Your task to perform on an android device: Search for seafood restaurants on Google Maps Image 0: 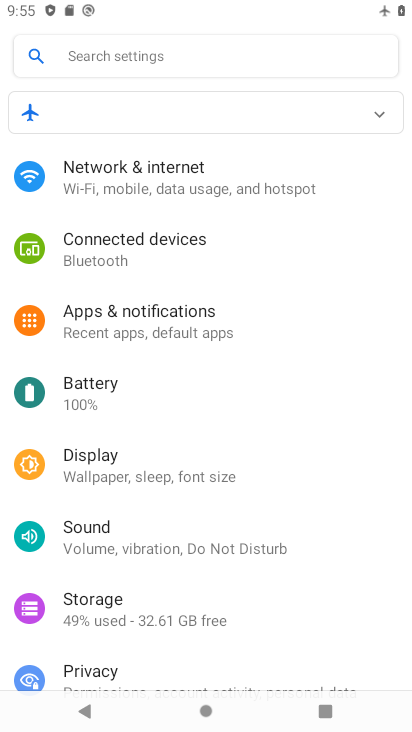
Step 0: press home button
Your task to perform on an android device: Search for seafood restaurants on Google Maps Image 1: 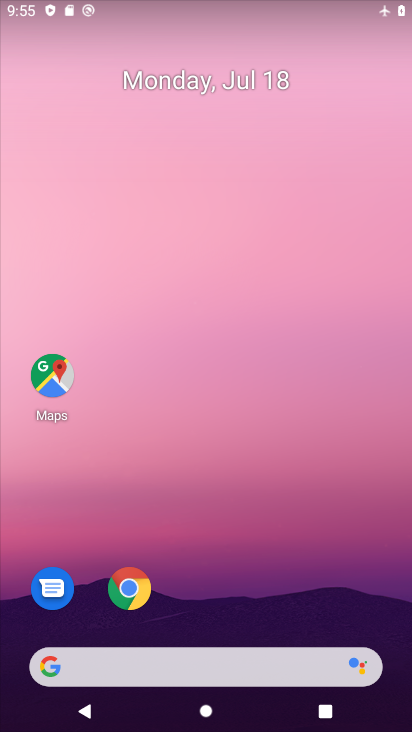
Step 1: drag from (235, 727) to (231, 149)
Your task to perform on an android device: Search for seafood restaurants on Google Maps Image 2: 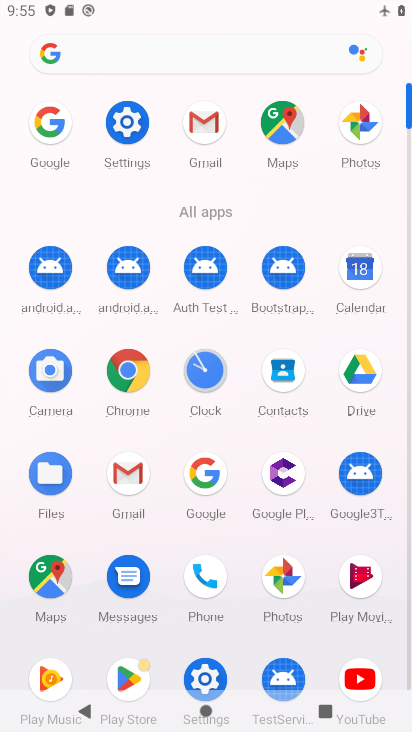
Step 2: click (285, 125)
Your task to perform on an android device: Search for seafood restaurants on Google Maps Image 3: 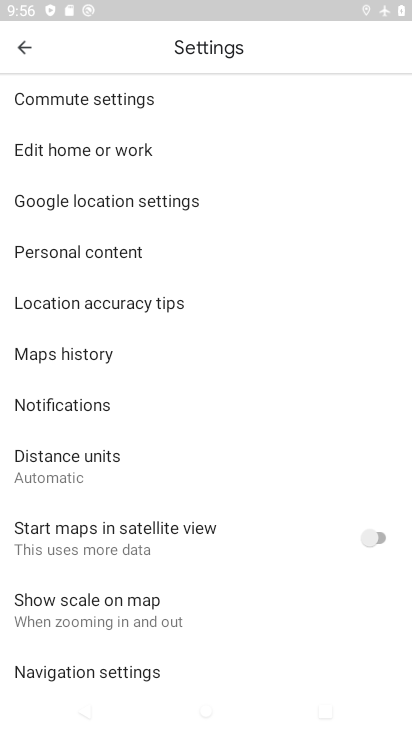
Step 3: click (24, 38)
Your task to perform on an android device: Search for seafood restaurants on Google Maps Image 4: 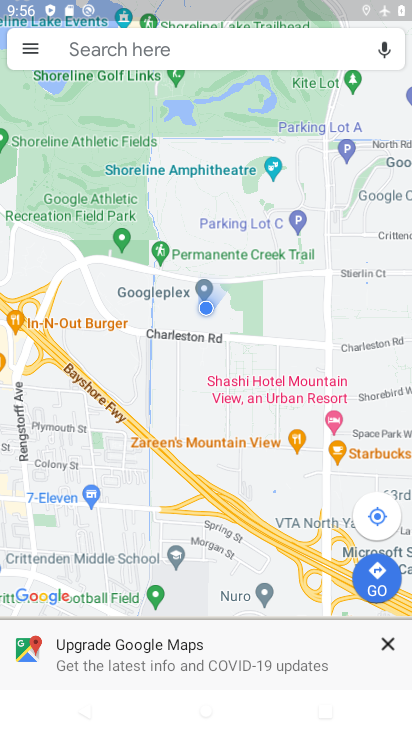
Step 4: click (135, 50)
Your task to perform on an android device: Search for seafood restaurants on Google Maps Image 5: 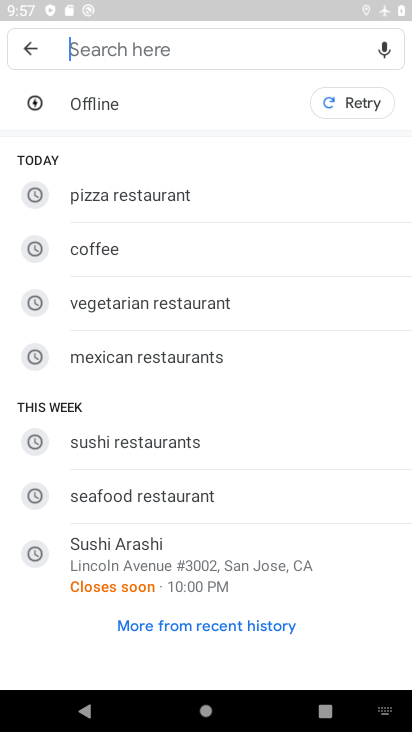
Step 5: type "seafood restaurants"
Your task to perform on an android device: Search for seafood restaurants on Google Maps Image 6: 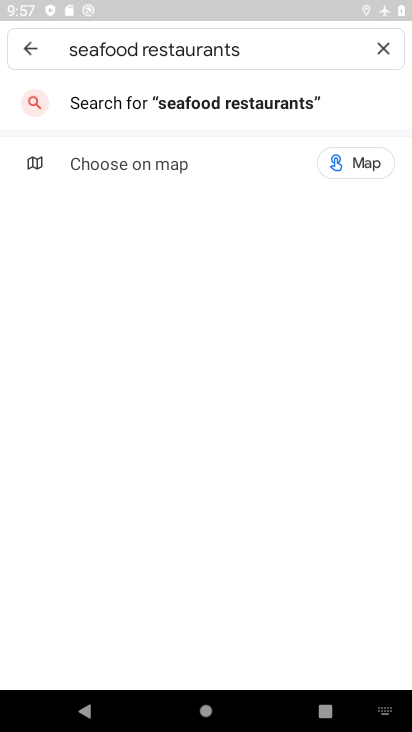
Step 6: click (249, 102)
Your task to perform on an android device: Search for seafood restaurants on Google Maps Image 7: 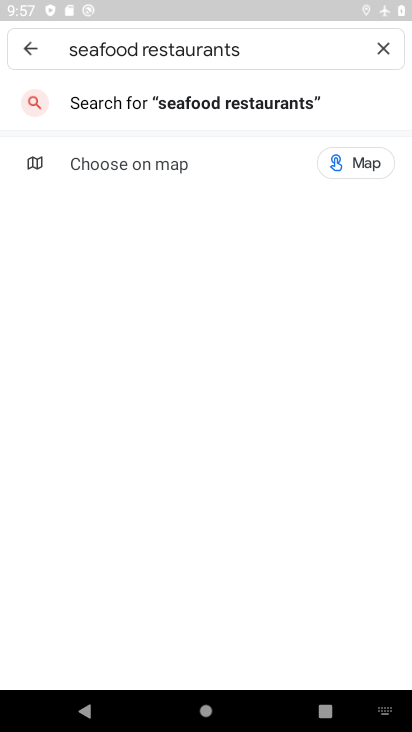
Step 7: task complete